Your task to perform on an android device: Go to display settings Image 0: 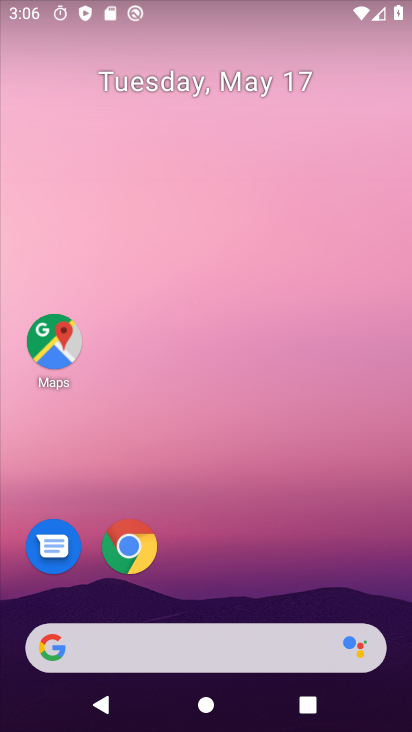
Step 0: drag from (229, 657) to (283, 108)
Your task to perform on an android device: Go to display settings Image 1: 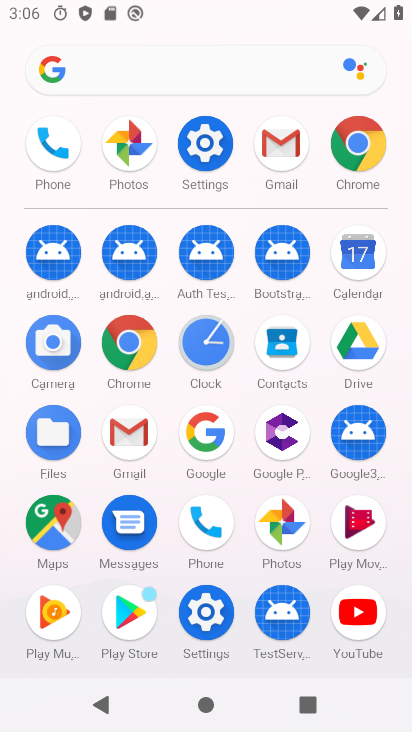
Step 1: click (202, 163)
Your task to perform on an android device: Go to display settings Image 2: 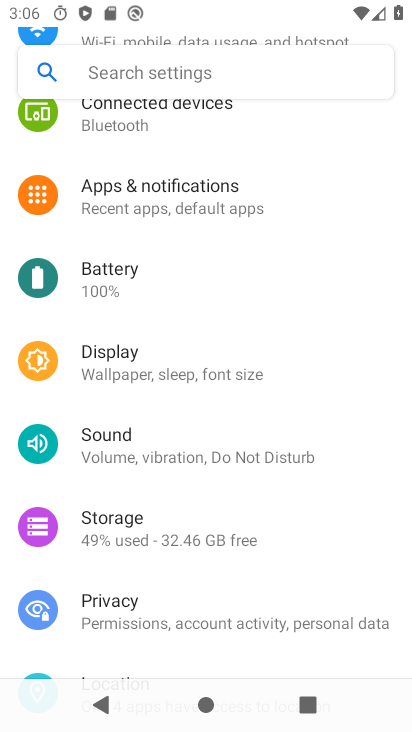
Step 2: drag from (179, 515) to (225, 369)
Your task to perform on an android device: Go to display settings Image 3: 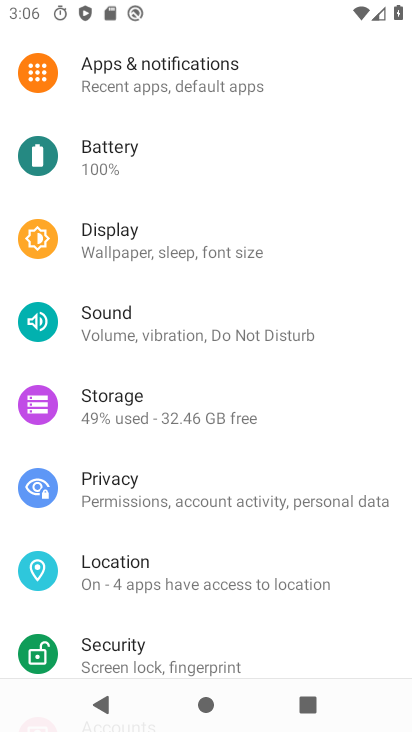
Step 3: click (211, 235)
Your task to perform on an android device: Go to display settings Image 4: 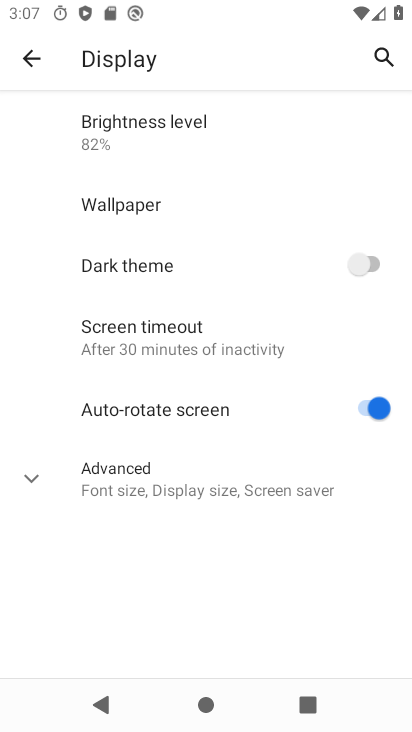
Step 4: task complete